Your task to perform on an android device: Open wifi settings Image 0: 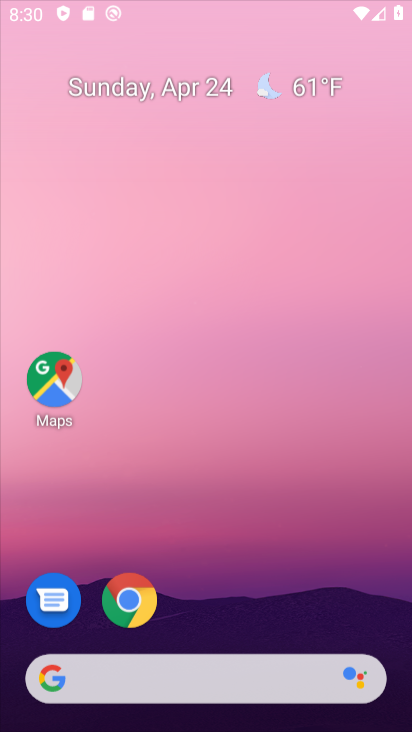
Step 0: drag from (225, 727) to (207, 153)
Your task to perform on an android device: Open wifi settings Image 1: 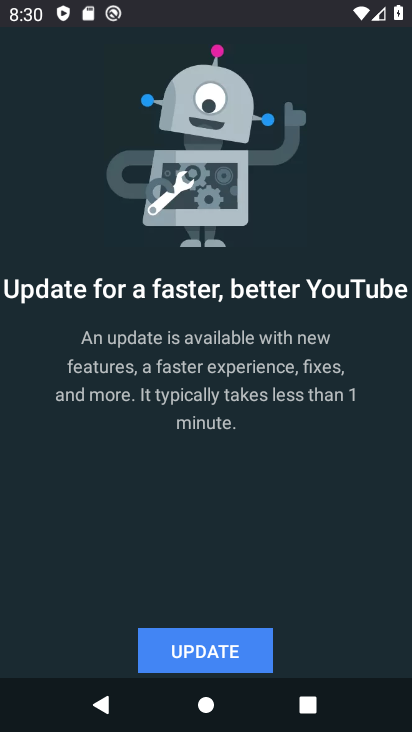
Step 1: press home button
Your task to perform on an android device: Open wifi settings Image 2: 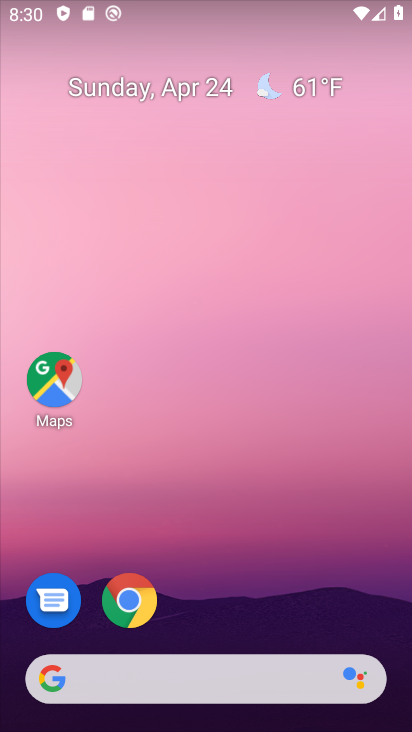
Step 2: drag from (219, 710) to (216, 232)
Your task to perform on an android device: Open wifi settings Image 3: 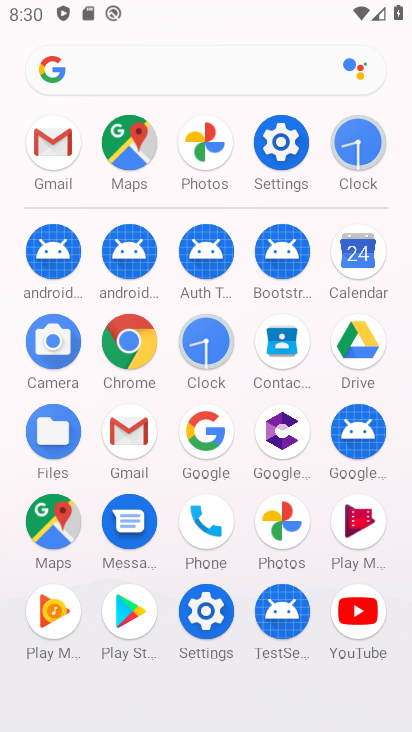
Step 3: click (199, 610)
Your task to perform on an android device: Open wifi settings Image 4: 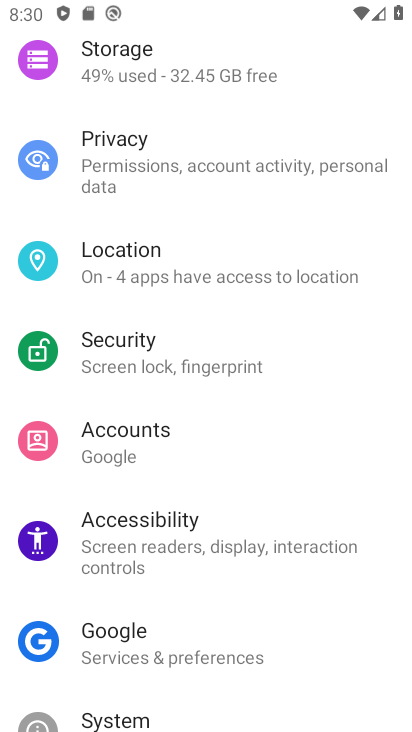
Step 4: drag from (203, 104) to (202, 535)
Your task to perform on an android device: Open wifi settings Image 5: 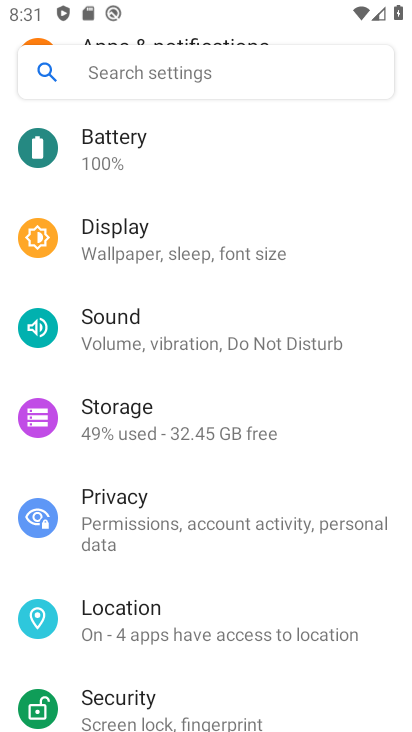
Step 5: drag from (191, 190) to (190, 482)
Your task to perform on an android device: Open wifi settings Image 6: 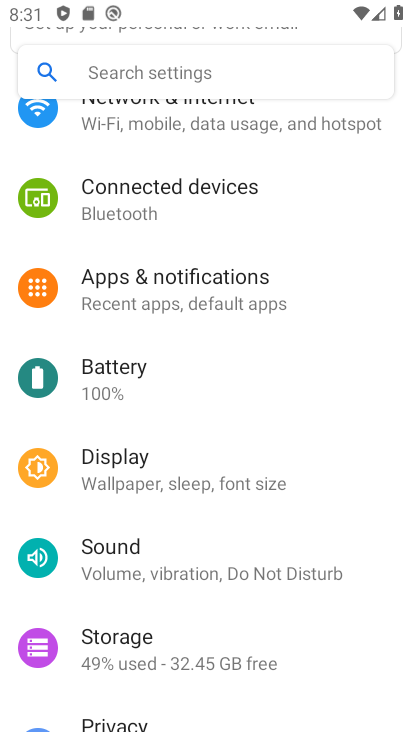
Step 6: drag from (189, 161) to (188, 489)
Your task to perform on an android device: Open wifi settings Image 7: 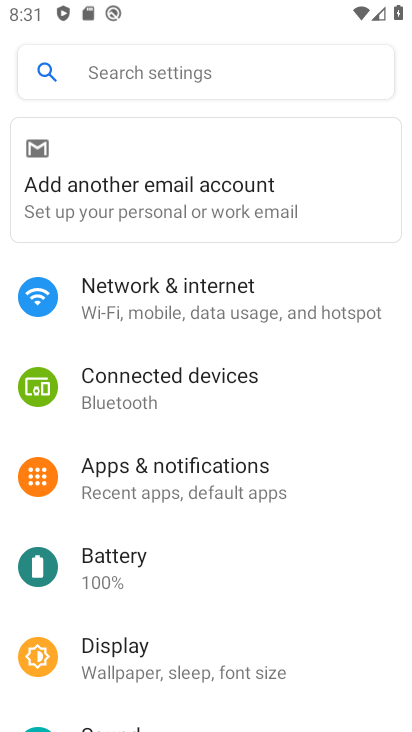
Step 7: click (158, 287)
Your task to perform on an android device: Open wifi settings Image 8: 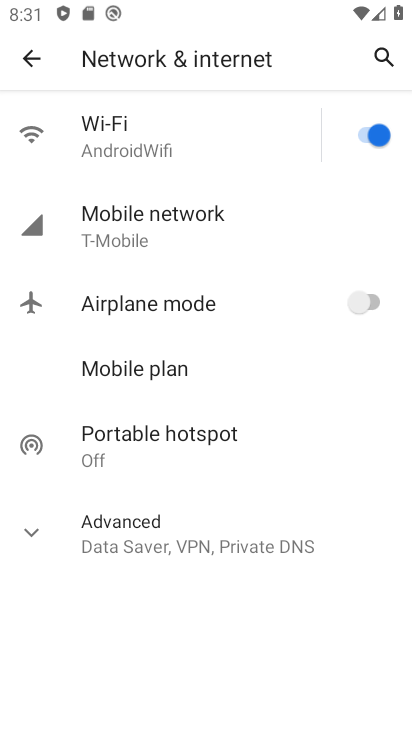
Step 8: click (113, 133)
Your task to perform on an android device: Open wifi settings Image 9: 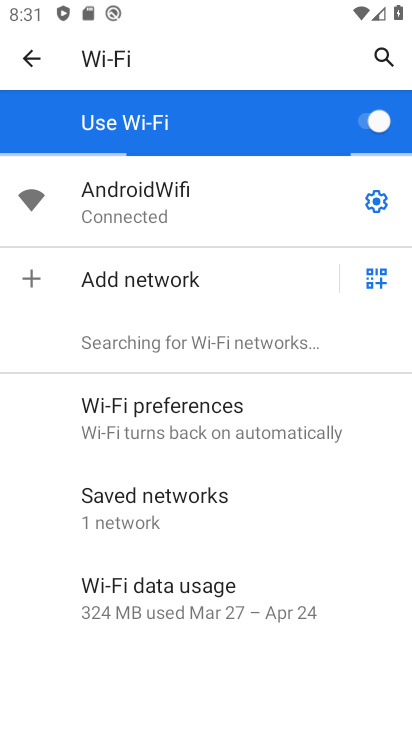
Step 9: task complete